Your task to perform on an android device: Search for Italian restaurants on Maps Image 0: 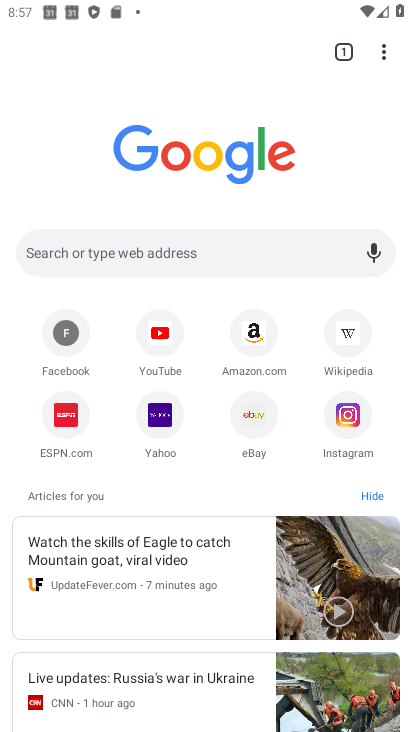
Step 0: press home button
Your task to perform on an android device: Search for Italian restaurants on Maps Image 1: 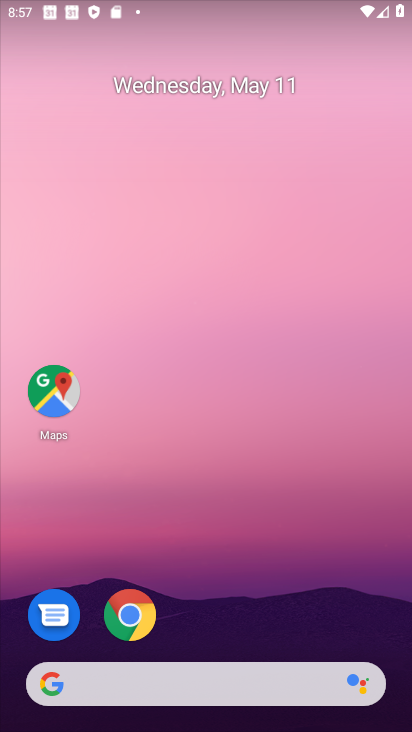
Step 1: click (49, 387)
Your task to perform on an android device: Search for Italian restaurants on Maps Image 2: 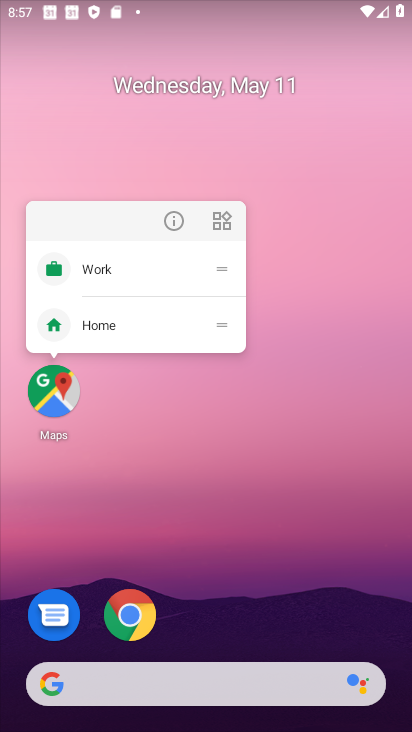
Step 2: click (49, 384)
Your task to perform on an android device: Search for Italian restaurants on Maps Image 3: 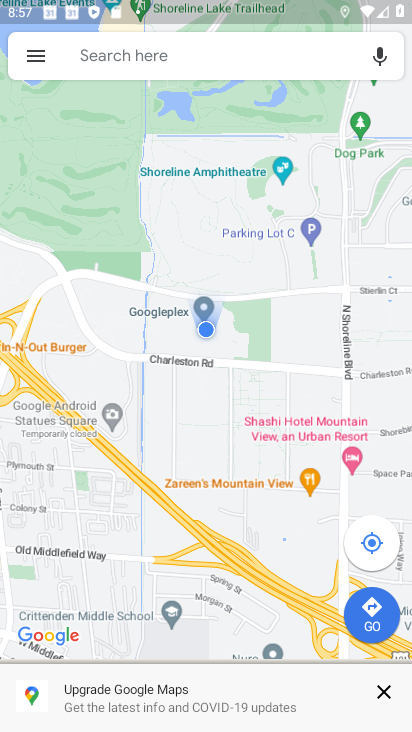
Step 3: click (376, 693)
Your task to perform on an android device: Search for Italian restaurants on Maps Image 4: 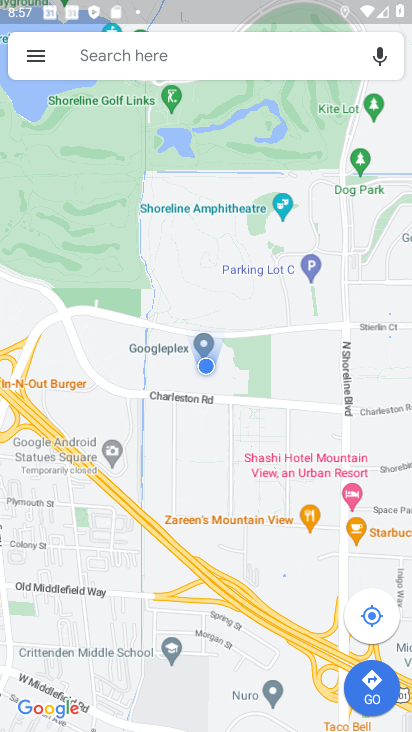
Step 4: click (197, 55)
Your task to perform on an android device: Search for Italian restaurants on Maps Image 5: 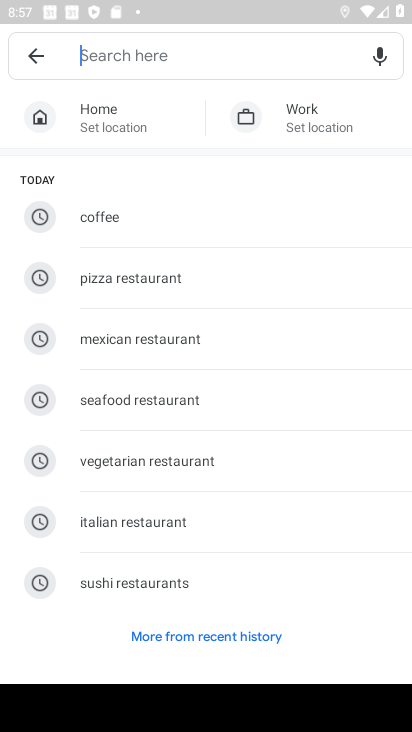
Step 5: click (151, 519)
Your task to perform on an android device: Search for Italian restaurants on Maps Image 6: 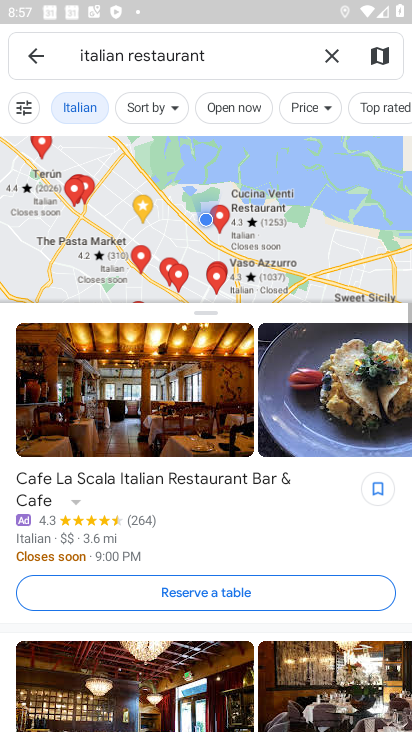
Step 6: task complete